Your task to perform on an android device: Do I have any events tomorrow? Image 0: 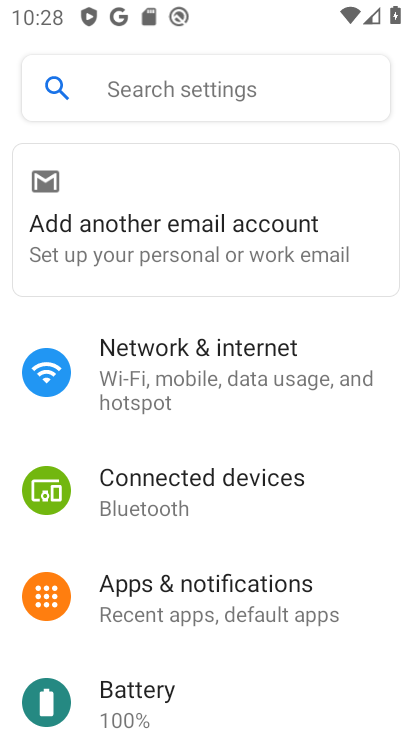
Step 0: press back button
Your task to perform on an android device: Do I have any events tomorrow? Image 1: 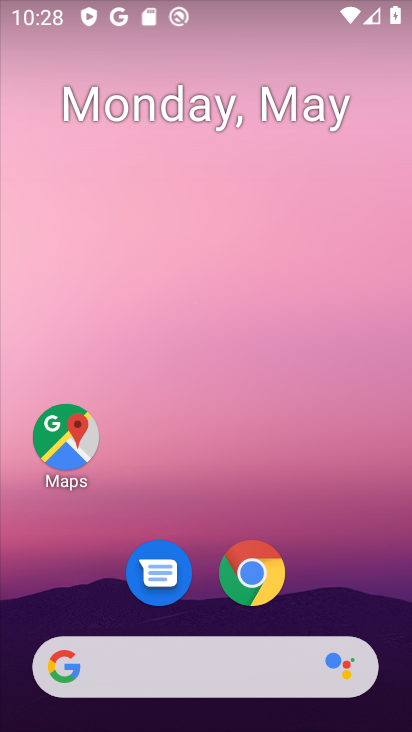
Step 1: drag from (181, 592) to (222, 255)
Your task to perform on an android device: Do I have any events tomorrow? Image 2: 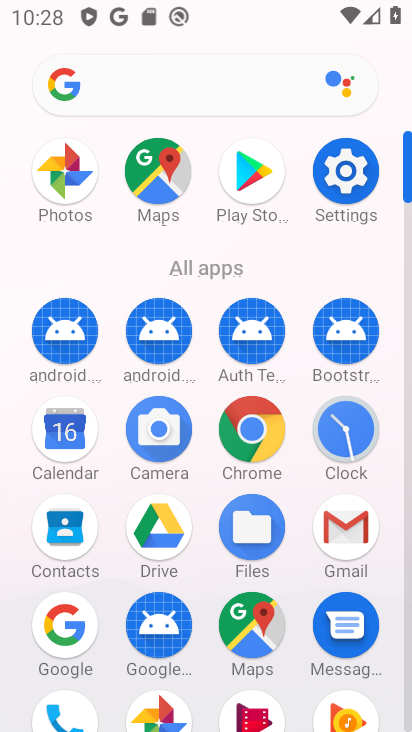
Step 2: click (70, 433)
Your task to perform on an android device: Do I have any events tomorrow? Image 3: 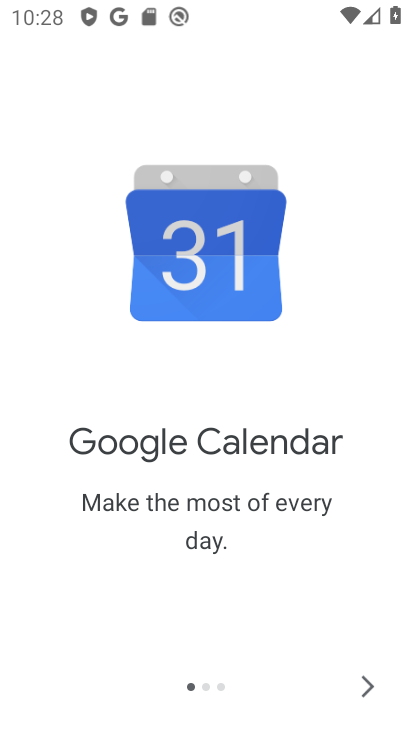
Step 3: click (385, 686)
Your task to perform on an android device: Do I have any events tomorrow? Image 4: 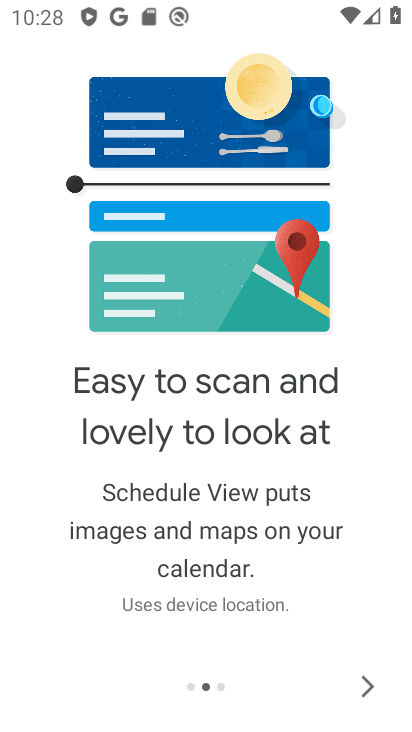
Step 4: click (365, 689)
Your task to perform on an android device: Do I have any events tomorrow? Image 5: 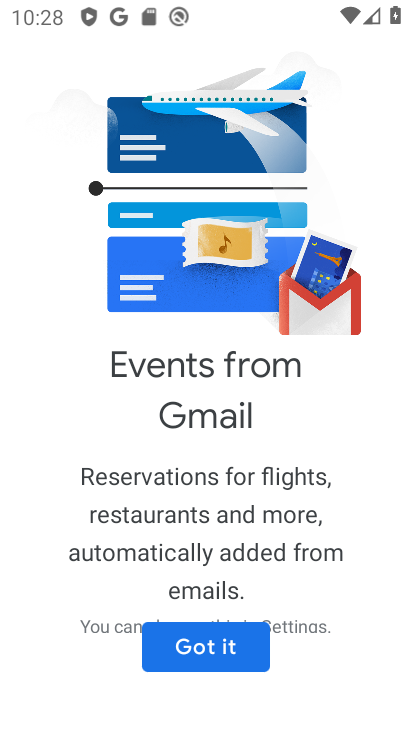
Step 5: click (188, 635)
Your task to perform on an android device: Do I have any events tomorrow? Image 6: 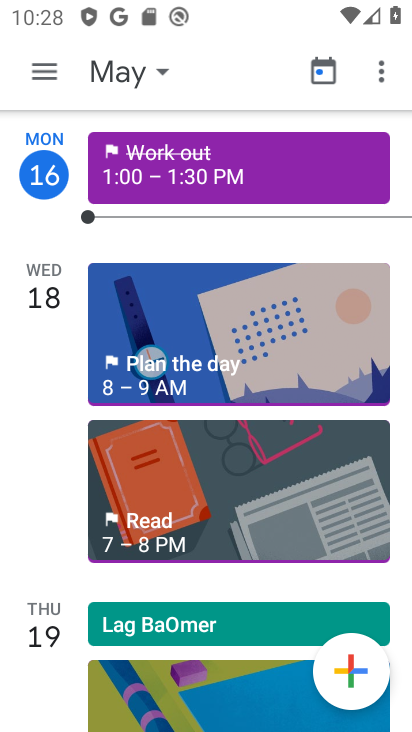
Step 6: click (201, 333)
Your task to perform on an android device: Do I have any events tomorrow? Image 7: 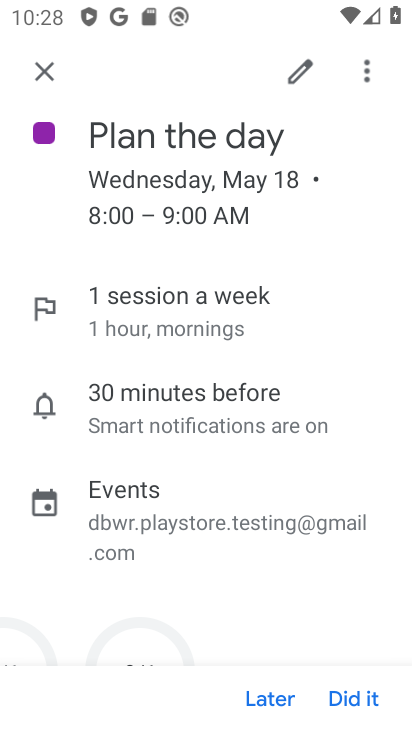
Step 7: task complete